Your task to perform on an android device: check out phone information Image 0: 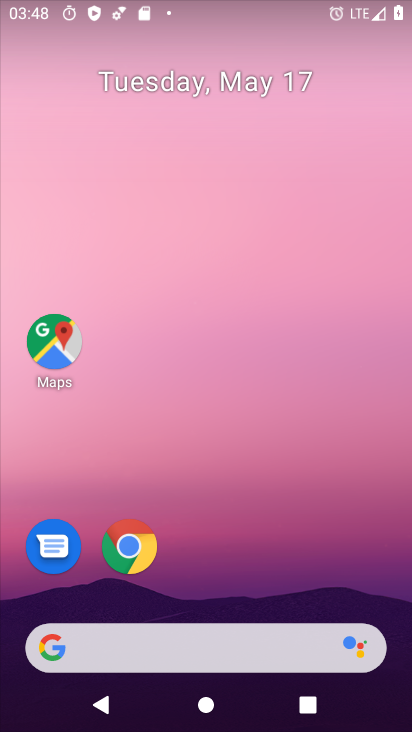
Step 0: drag from (228, 563) to (241, 207)
Your task to perform on an android device: check out phone information Image 1: 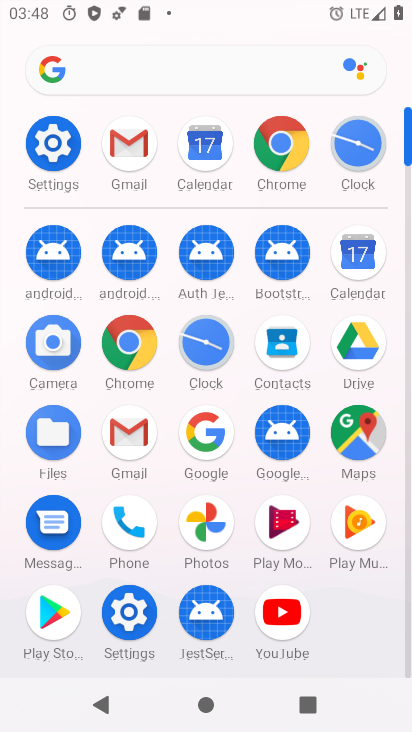
Step 1: click (136, 523)
Your task to perform on an android device: check out phone information Image 2: 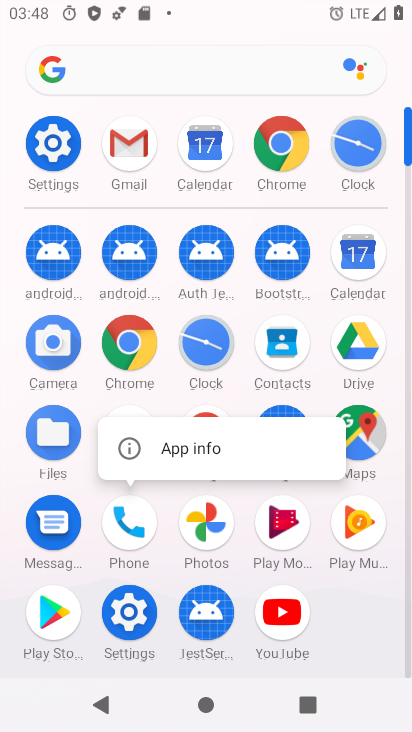
Step 2: click (206, 455)
Your task to perform on an android device: check out phone information Image 3: 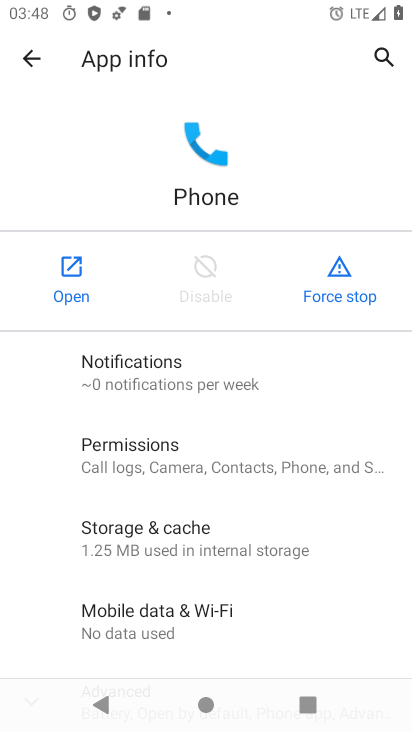
Step 3: task complete